Your task to perform on an android device: Do I have any events this weekend? Image 0: 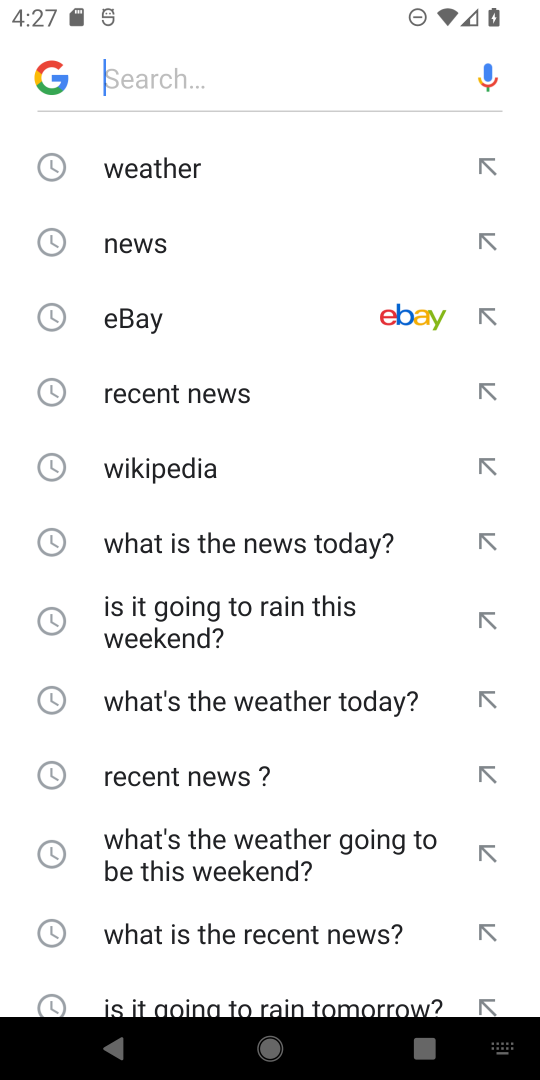
Step 0: press home button
Your task to perform on an android device: Do I have any events this weekend? Image 1: 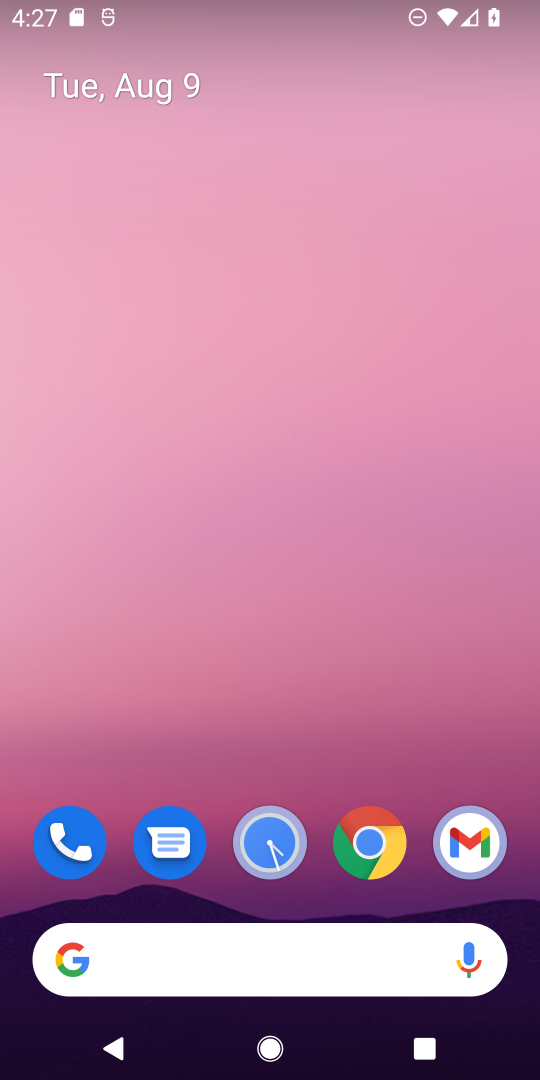
Step 1: drag from (361, 951) to (263, 125)
Your task to perform on an android device: Do I have any events this weekend? Image 2: 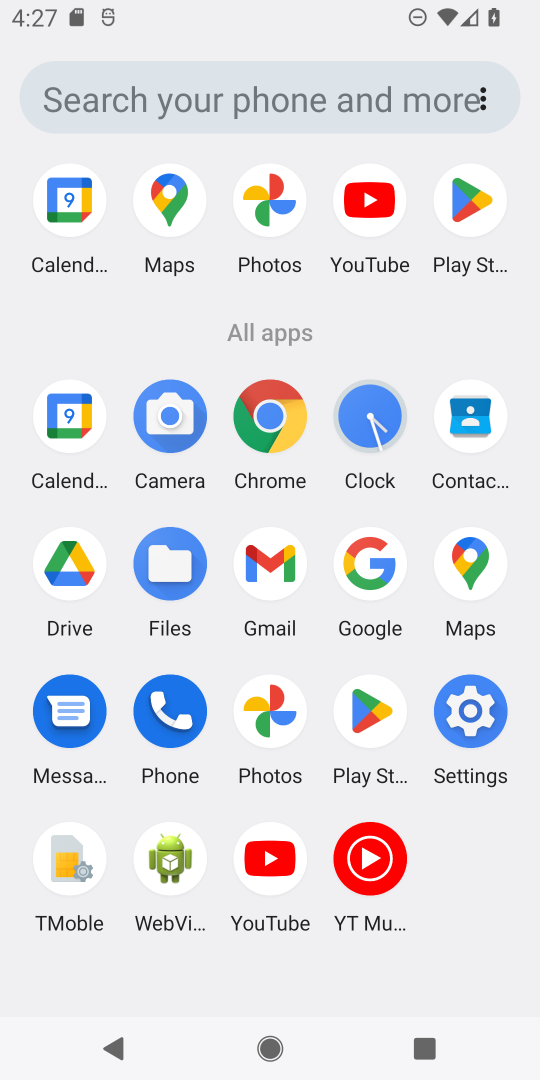
Step 2: click (69, 422)
Your task to perform on an android device: Do I have any events this weekend? Image 3: 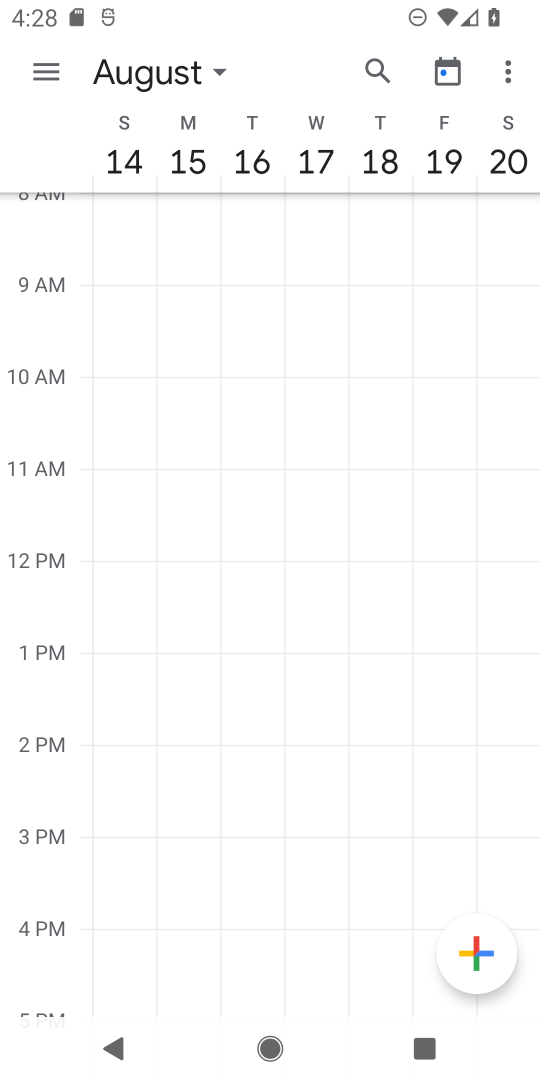
Step 3: click (219, 71)
Your task to perform on an android device: Do I have any events this weekend? Image 4: 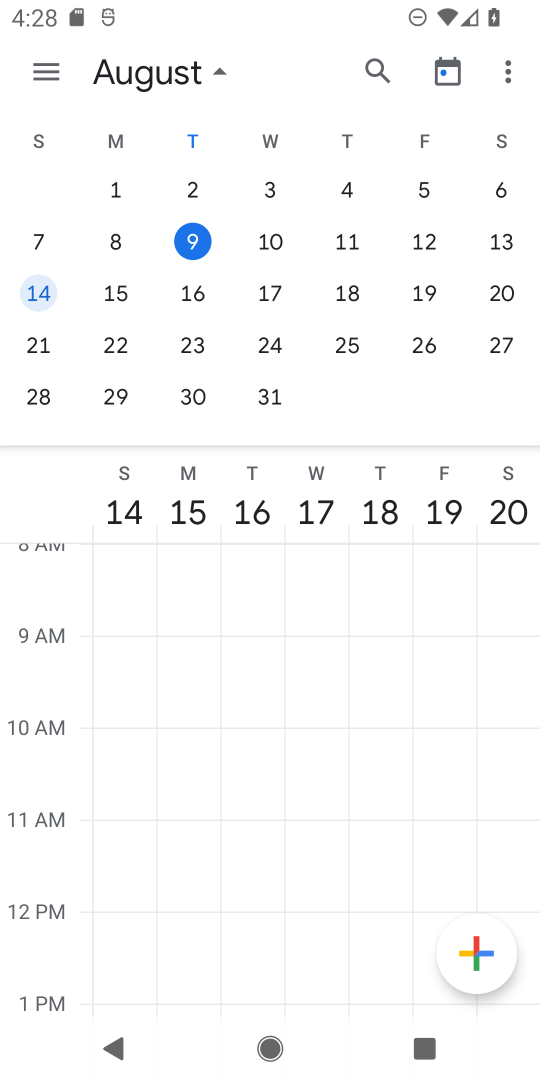
Step 4: click (504, 279)
Your task to perform on an android device: Do I have any events this weekend? Image 5: 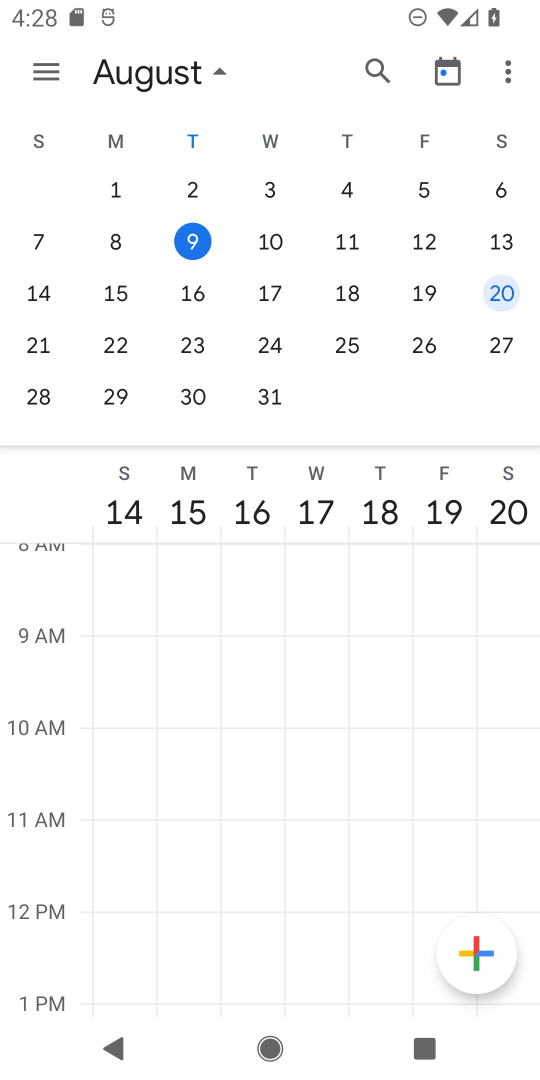
Step 5: task complete